Your task to perform on an android device: Search for pizza restaurants on Maps Image 0: 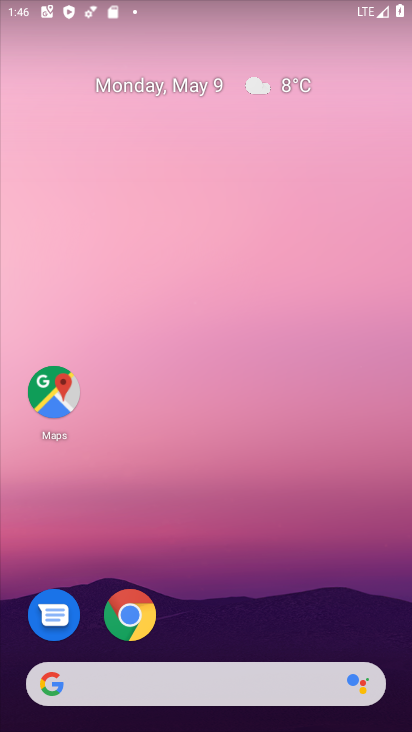
Step 0: click (55, 393)
Your task to perform on an android device: Search for pizza restaurants on Maps Image 1: 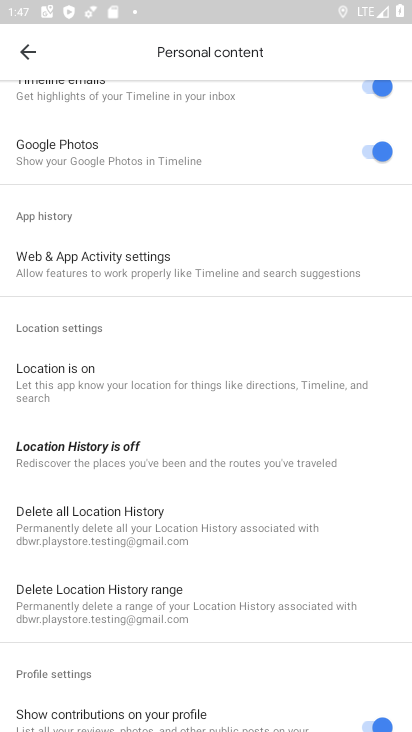
Step 1: press back button
Your task to perform on an android device: Search for pizza restaurants on Maps Image 2: 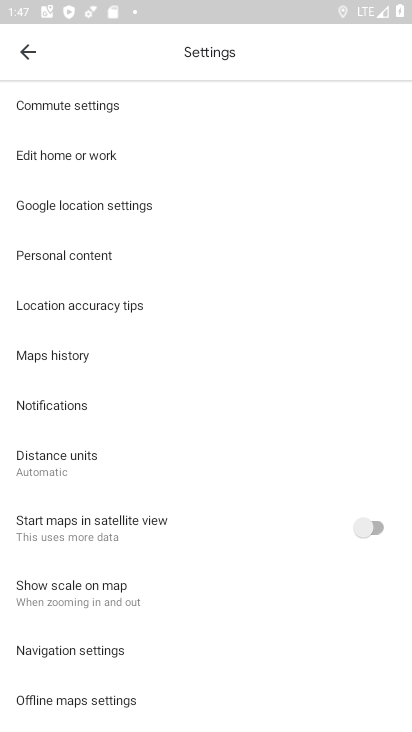
Step 2: press back button
Your task to perform on an android device: Search for pizza restaurants on Maps Image 3: 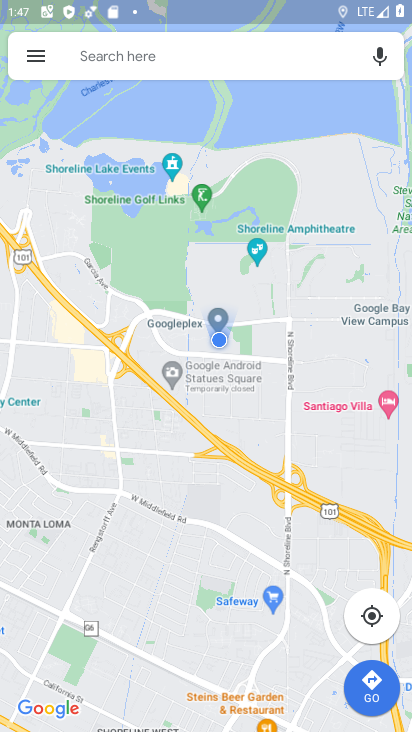
Step 3: click (103, 51)
Your task to perform on an android device: Search for pizza restaurants on Maps Image 4: 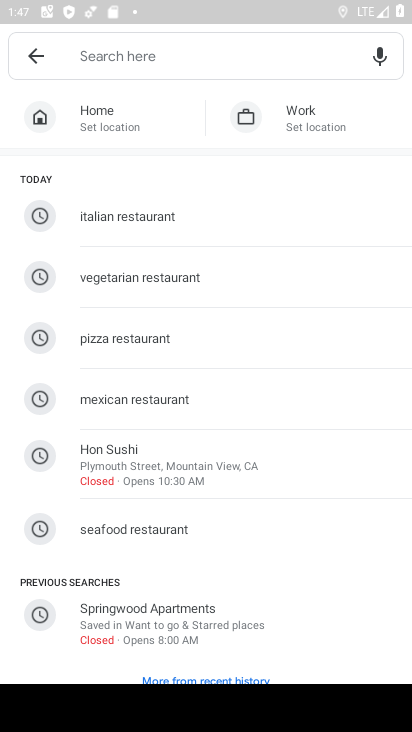
Step 4: type "pizza restaurants"
Your task to perform on an android device: Search for pizza restaurants on Maps Image 5: 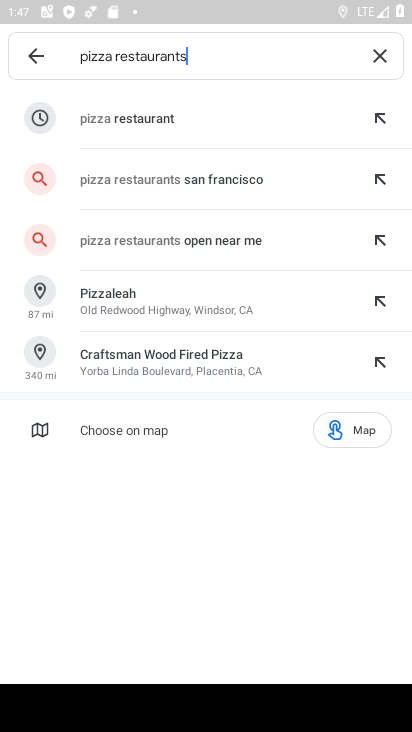
Step 5: click (127, 121)
Your task to perform on an android device: Search for pizza restaurants on Maps Image 6: 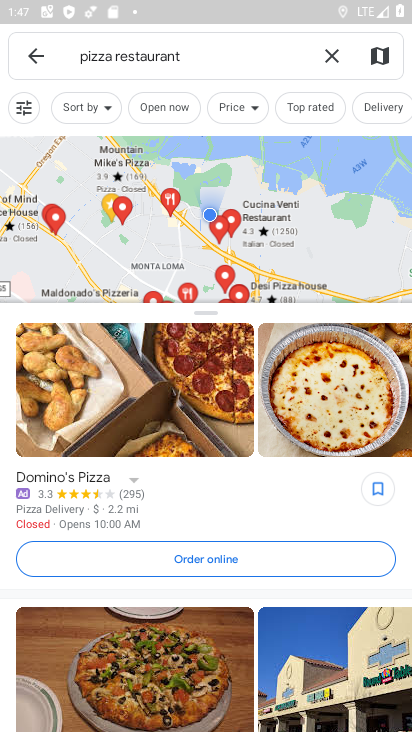
Step 6: task complete